Your task to perform on an android device: Do I have any events today? Image 0: 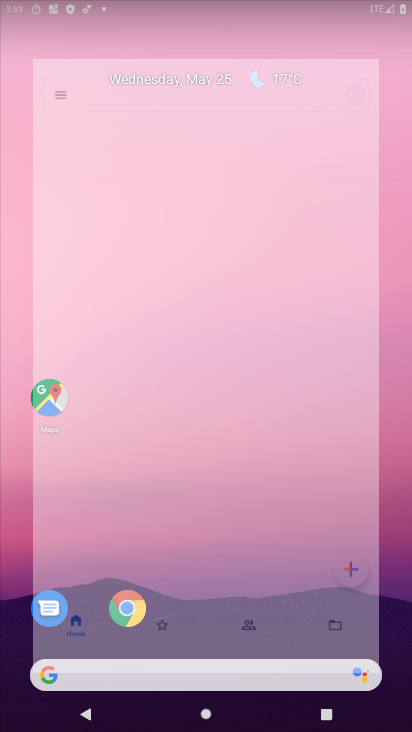
Step 0: drag from (259, 502) to (298, 30)
Your task to perform on an android device: Do I have any events today? Image 1: 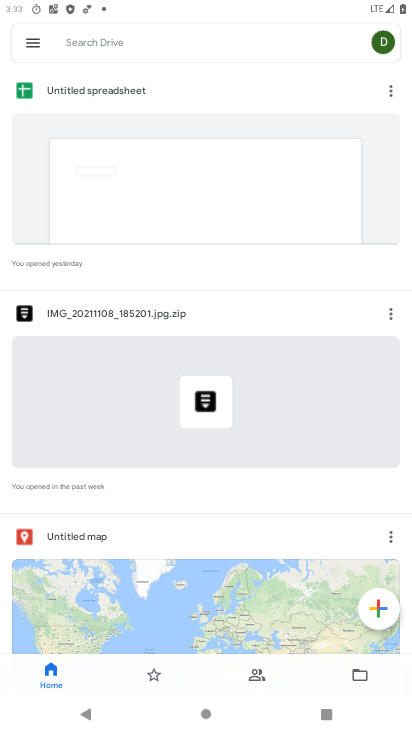
Step 1: press home button
Your task to perform on an android device: Do I have any events today? Image 2: 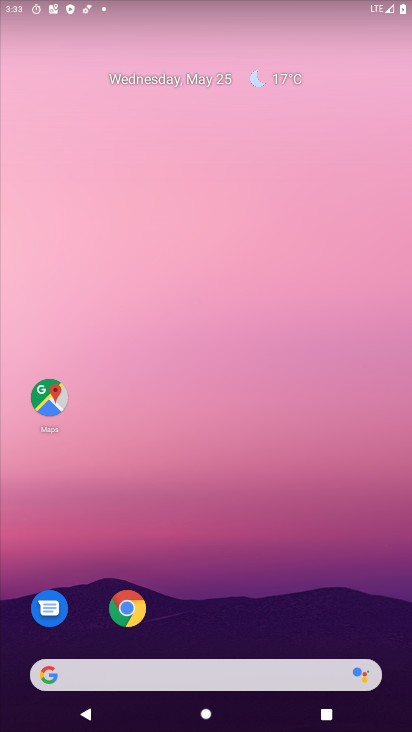
Step 2: drag from (295, 619) to (307, 201)
Your task to perform on an android device: Do I have any events today? Image 3: 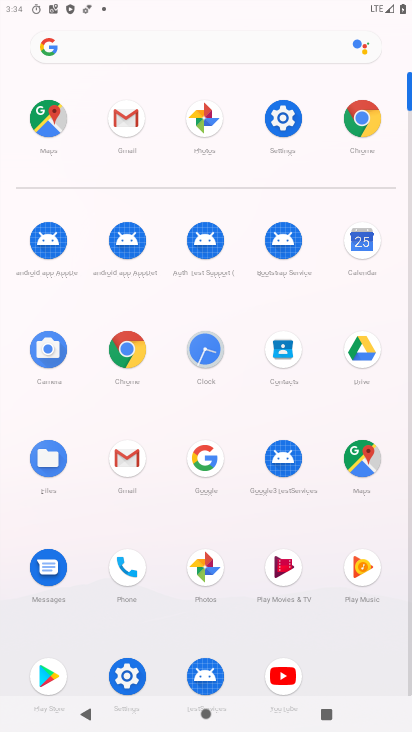
Step 3: click (353, 236)
Your task to perform on an android device: Do I have any events today? Image 4: 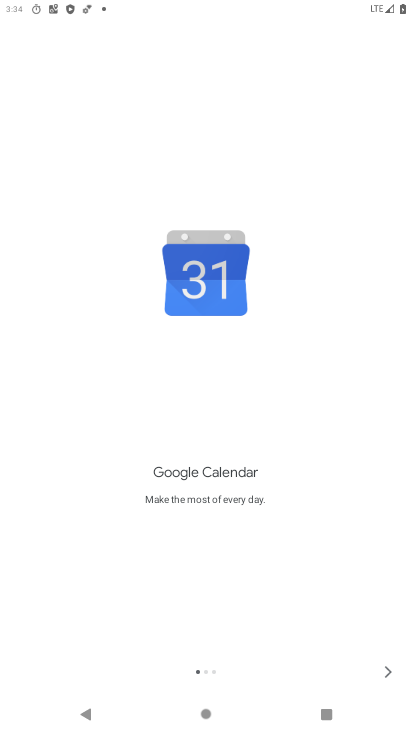
Step 4: click (380, 674)
Your task to perform on an android device: Do I have any events today? Image 5: 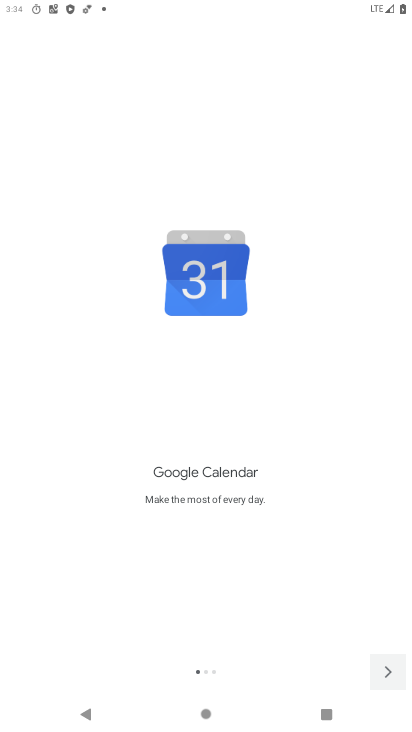
Step 5: click (380, 674)
Your task to perform on an android device: Do I have any events today? Image 6: 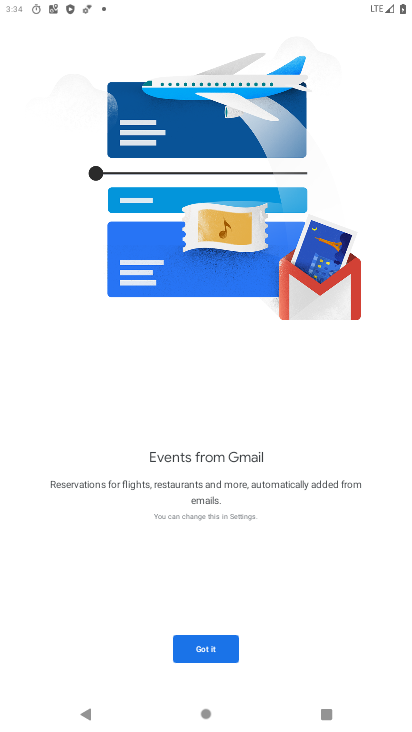
Step 6: click (195, 644)
Your task to perform on an android device: Do I have any events today? Image 7: 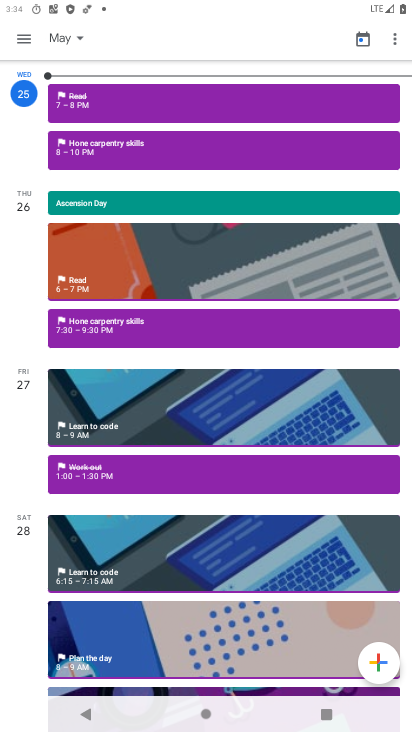
Step 7: task complete